Your task to perform on an android device: Go to settings Image 0: 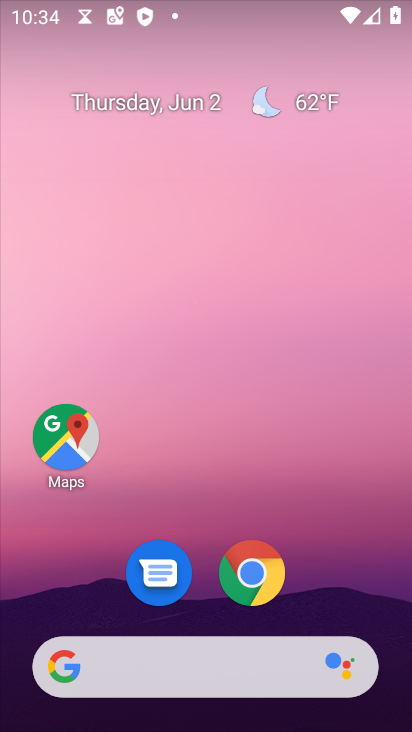
Step 0: drag from (330, 589) to (317, 249)
Your task to perform on an android device: Go to settings Image 1: 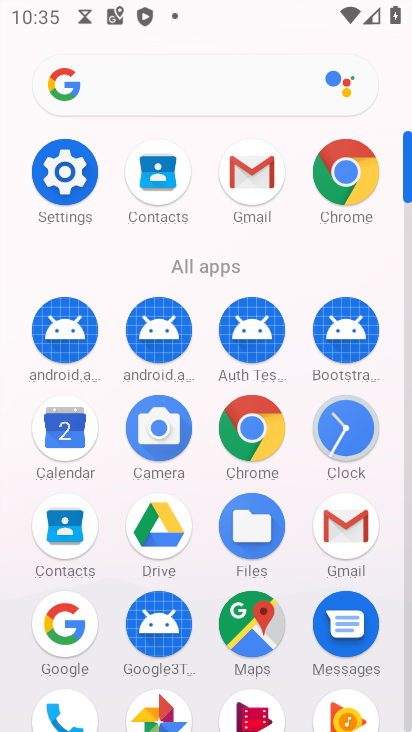
Step 1: click (64, 167)
Your task to perform on an android device: Go to settings Image 2: 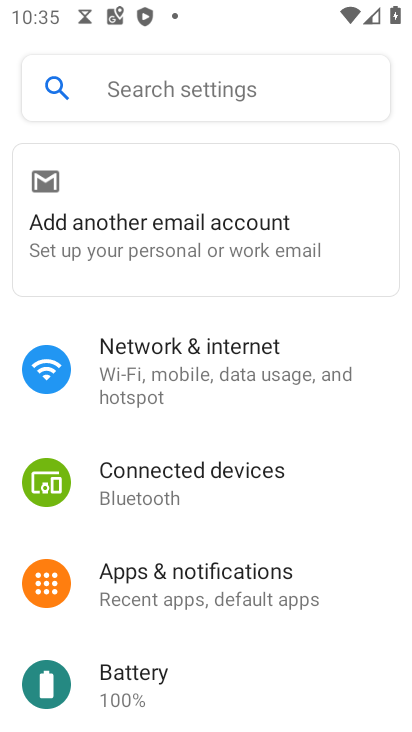
Step 2: task complete